Your task to perform on an android device: Open Google Chrome and open the bookmarks view Image 0: 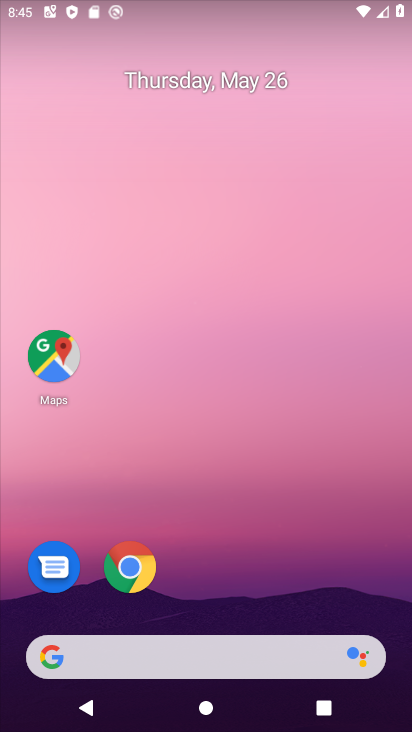
Step 0: click (128, 571)
Your task to perform on an android device: Open Google Chrome and open the bookmarks view Image 1: 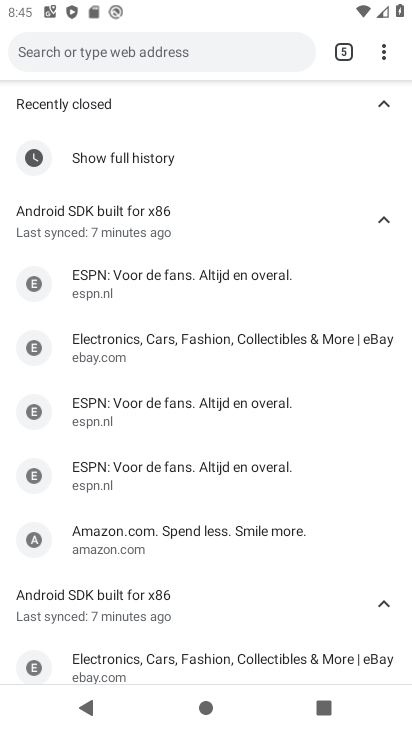
Step 1: task complete